Your task to perform on an android device: Show me recent news Image 0: 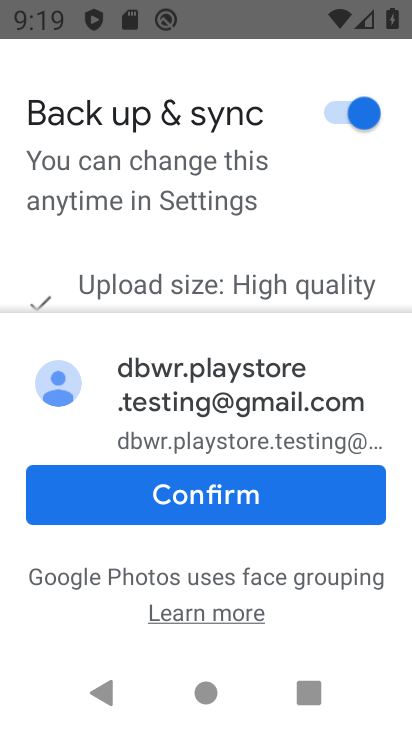
Step 0: press home button
Your task to perform on an android device: Show me recent news Image 1: 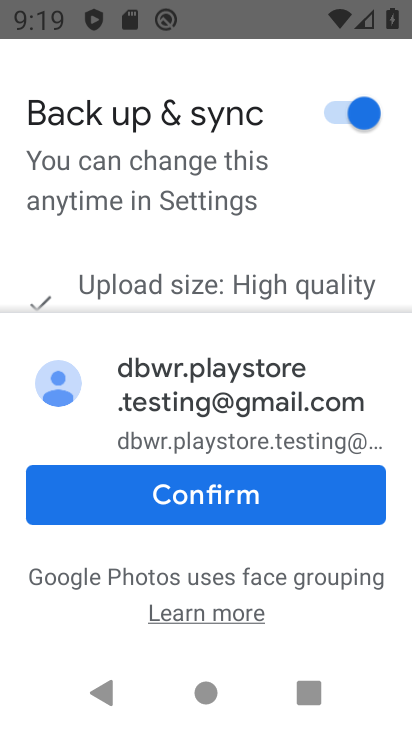
Step 1: press home button
Your task to perform on an android device: Show me recent news Image 2: 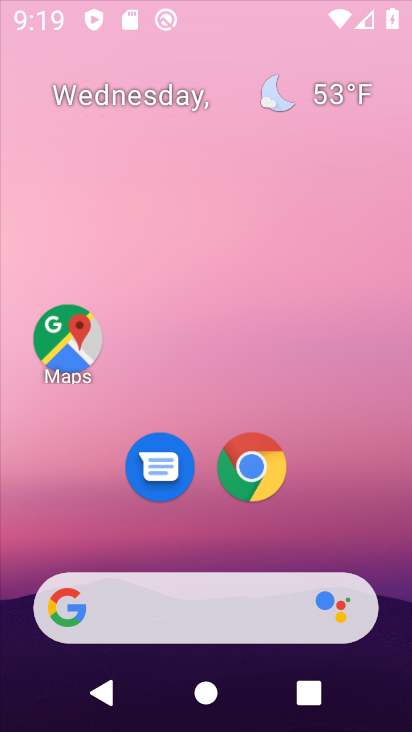
Step 2: press home button
Your task to perform on an android device: Show me recent news Image 3: 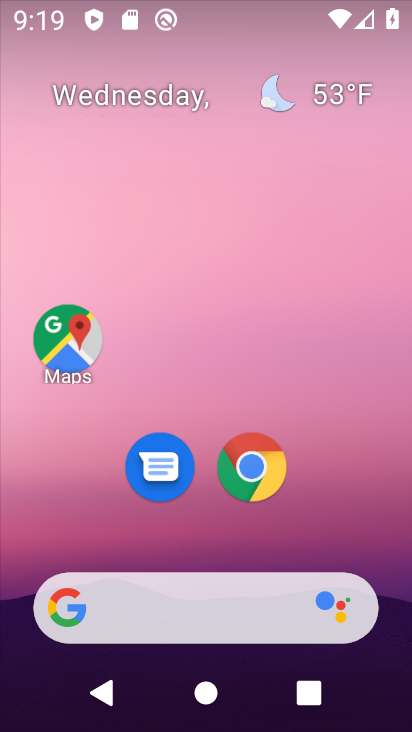
Step 3: press home button
Your task to perform on an android device: Show me recent news Image 4: 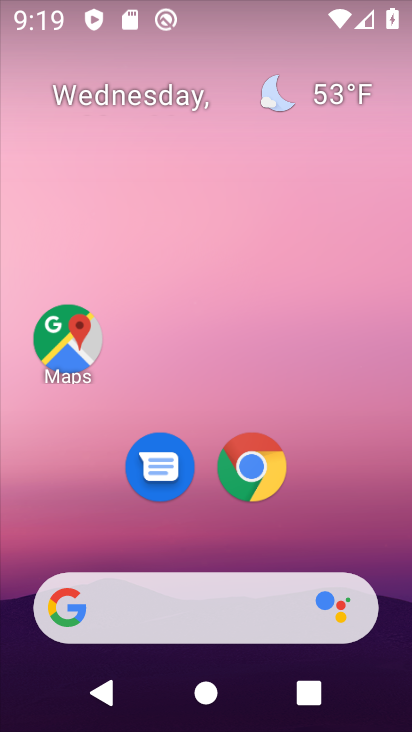
Step 4: drag from (353, 539) to (311, 355)
Your task to perform on an android device: Show me recent news Image 5: 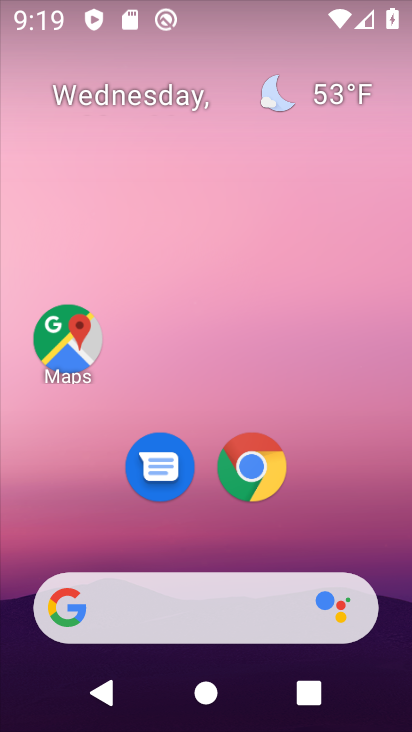
Step 5: drag from (311, 343) to (303, 1)
Your task to perform on an android device: Show me recent news Image 6: 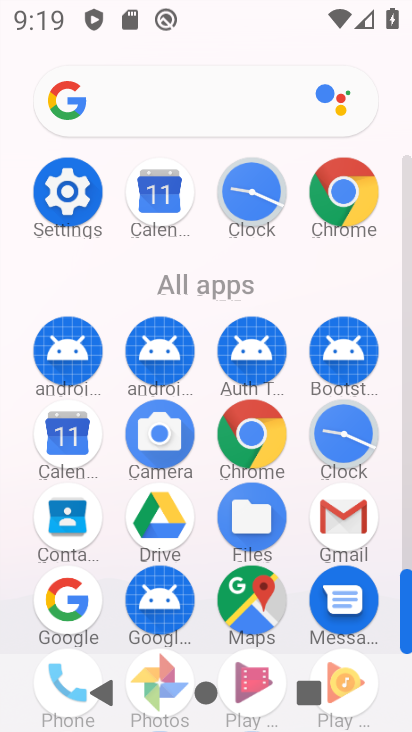
Step 6: click (354, 199)
Your task to perform on an android device: Show me recent news Image 7: 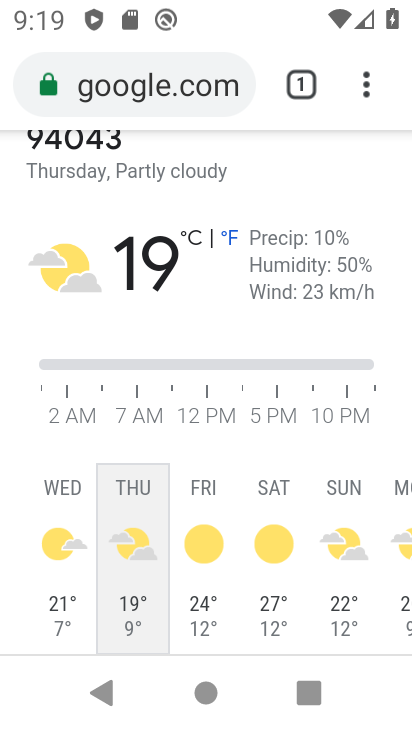
Step 7: click (230, 101)
Your task to perform on an android device: Show me recent news Image 8: 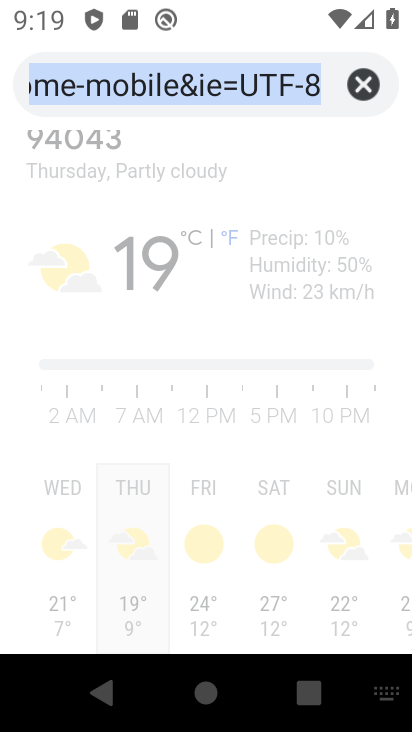
Step 8: click (342, 88)
Your task to perform on an android device: Show me recent news Image 9: 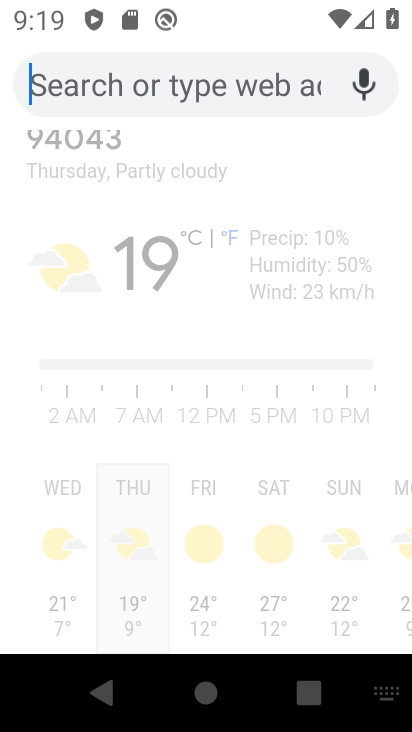
Step 9: click (205, 85)
Your task to perform on an android device: Show me recent news Image 10: 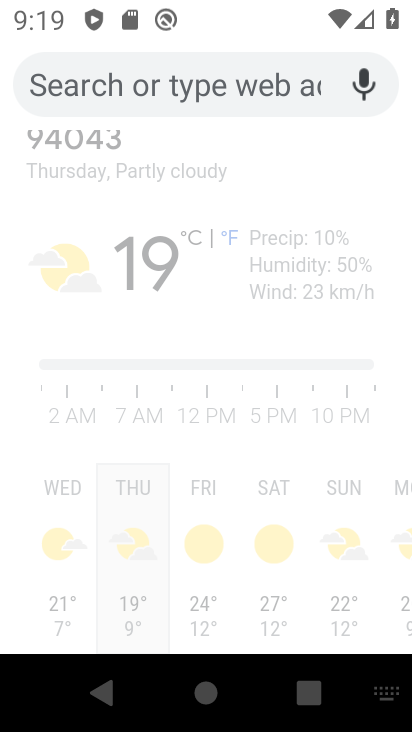
Step 10: type "Show me recent news"
Your task to perform on an android device: Show me recent news Image 11: 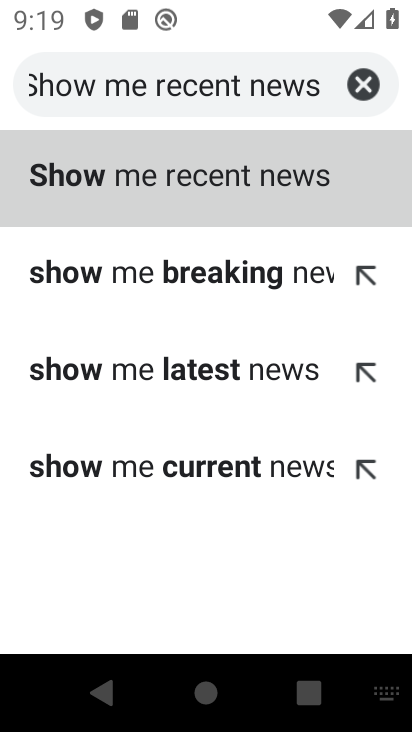
Step 11: click (238, 162)
Your task to perform on an android device: Show me recent news Image 12: 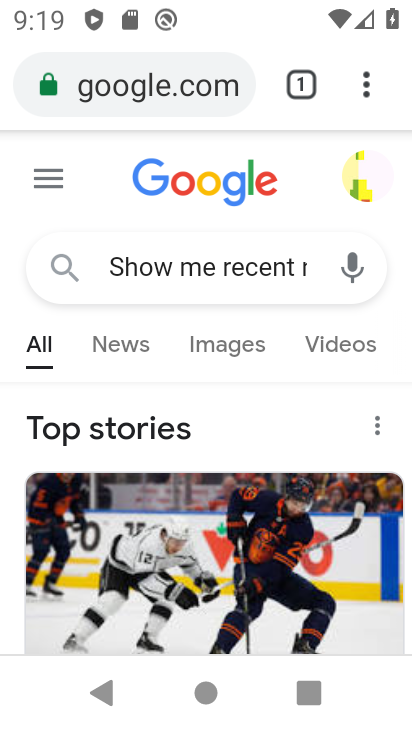
Step 12: task complete